Your task to perform on an android device: check google app version Image 0: 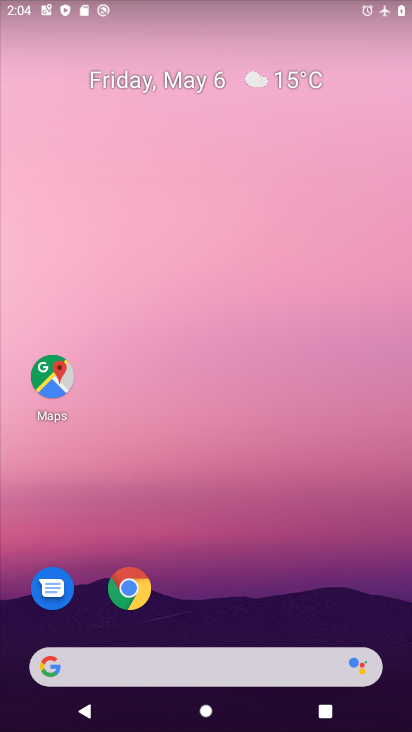
Step 0: drag from (221, 635) to (206, 213)
Your task to perform on an android device: check google app version Image 1: 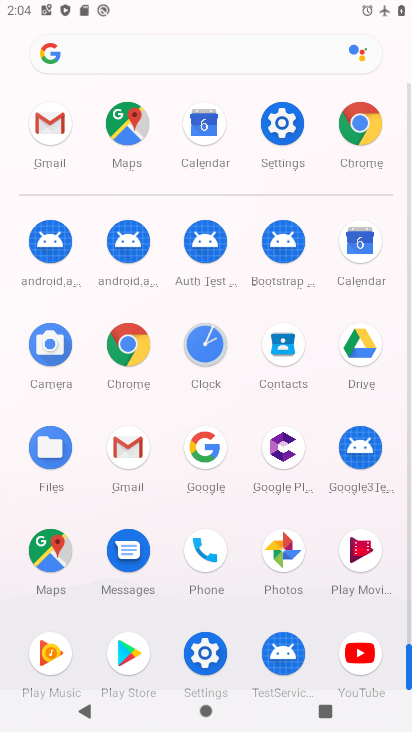
Step 1: click (202, 463)
Your task to perform on an android device: check google app version Image 2: 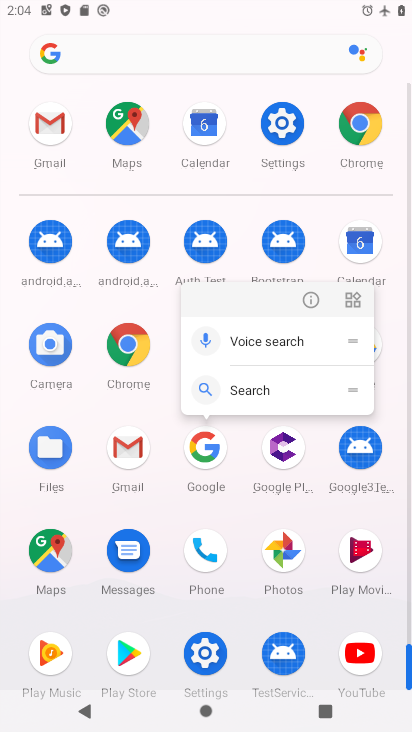
Step 2: click (298, 299)
Your task to perform on an android device: check google app version Image 3: 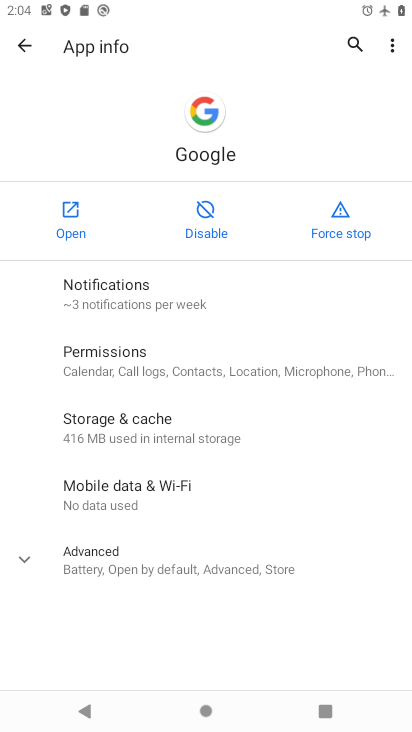
Step 3: click (71, 221)
Your task to perform on an android device: check google app version Image 4: 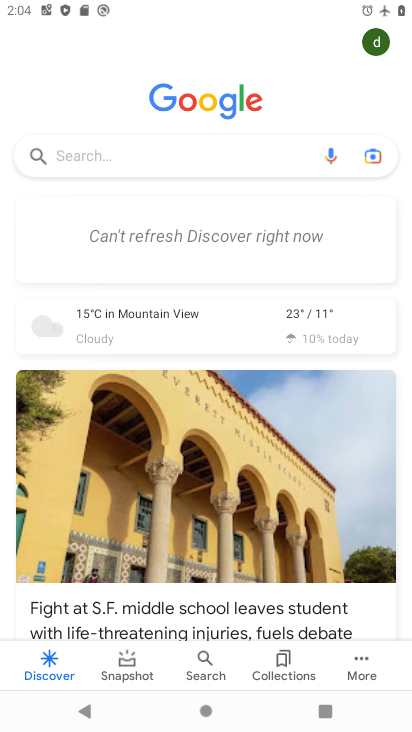
Step 4: drag from (170, 530) to (177, 45)
Your task to perform on an android device: check google app version Image 5: 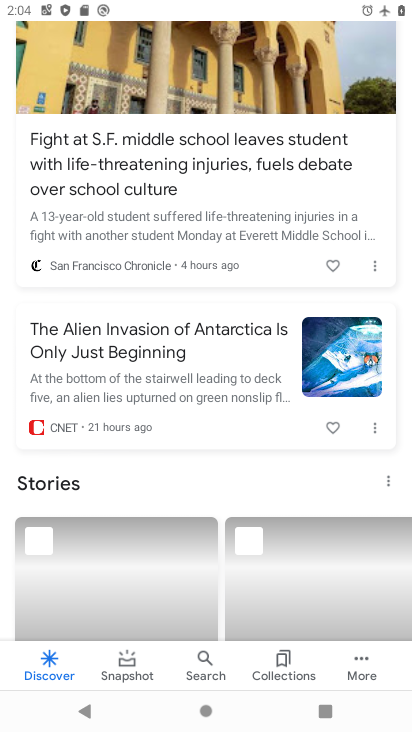
Step 5: drag from (186, 232) to (243, 686)
Your task to perform on an android device: check google app version Image 6: 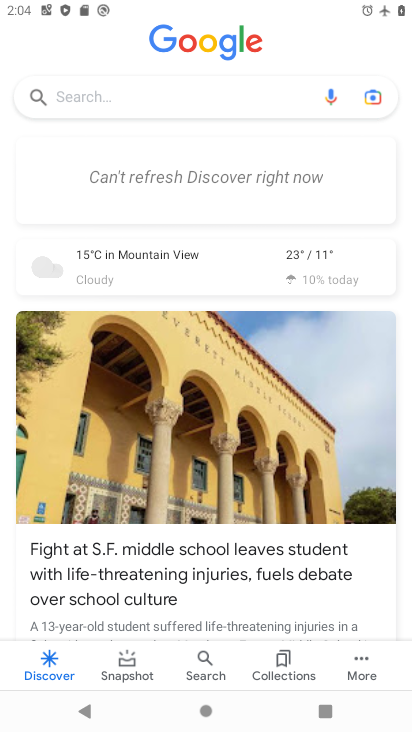
Step 6: drag from (219, 270) to (267, 599)
Your task to perform on an android device: check google app version Image 7: 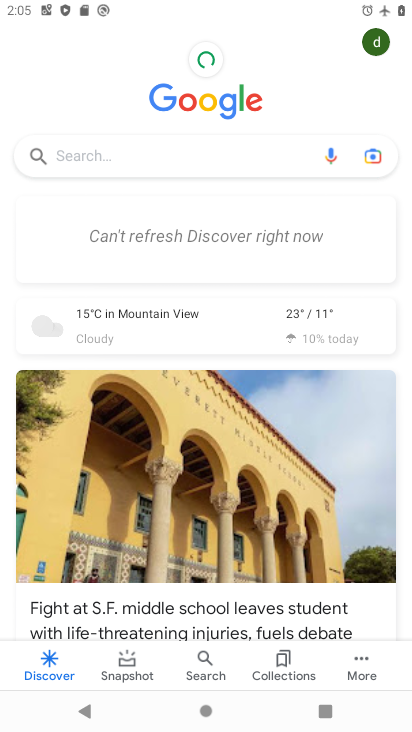
Step 7: click (367, 662)
Your task to perform on an android device: check google app version Image 8: 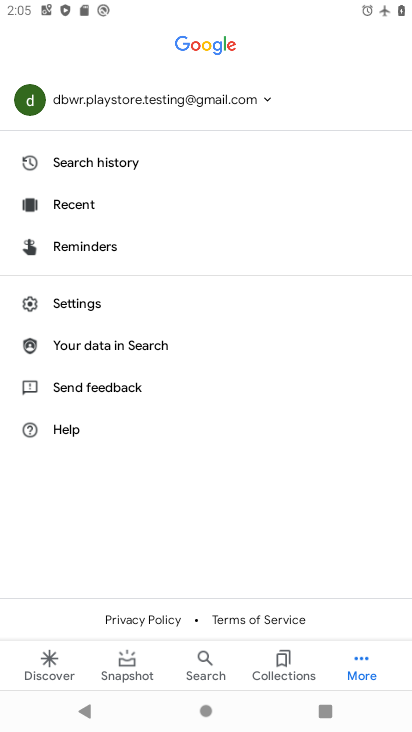
Step 8: click (117, 316)
Your task to perform on an android device: check google app version Image 9: 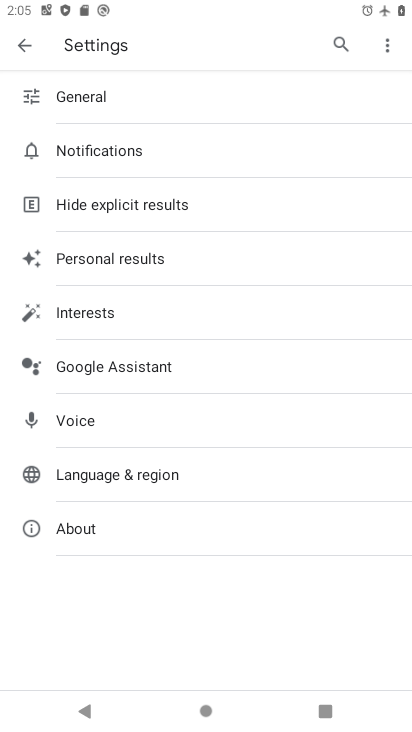
Step 9: click (111, 523)
Your task to perform on an android device: check google app version Image 10: 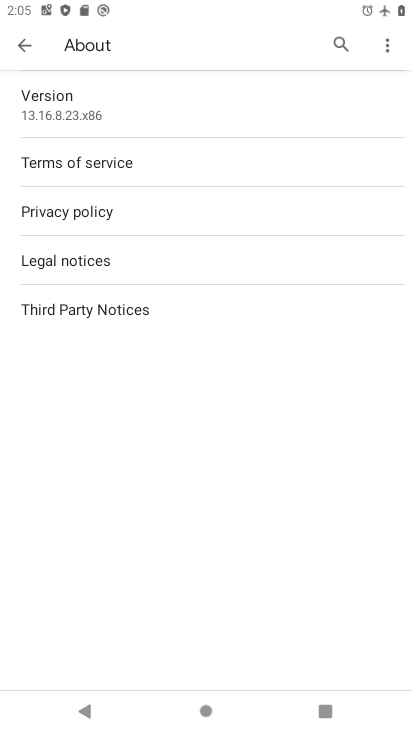
Step 10: click (162, 112)
Your task to perform on an android device: check google app version Image 11: 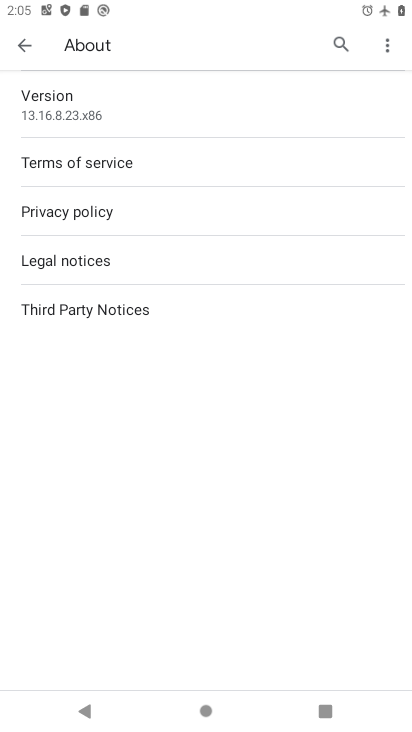
Step 11: task complete